Your task to perform on an android device: Go to calendar. Show me events next week Image 0: 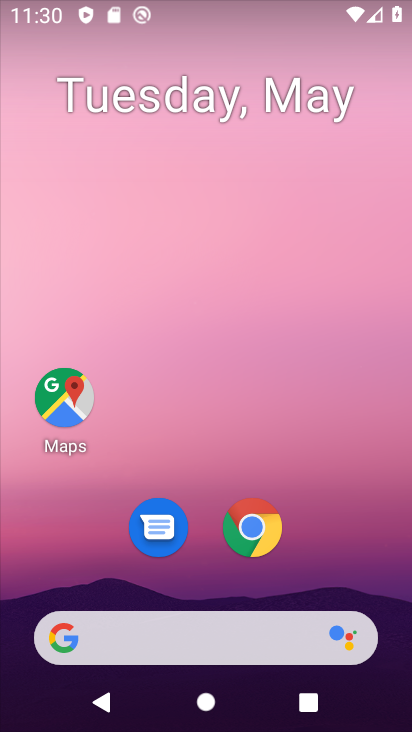
Step 0: drag from (194, 619) to (294, 130)
Your task to perform on an android device: Go to calendar. Show me events next week Image 1: 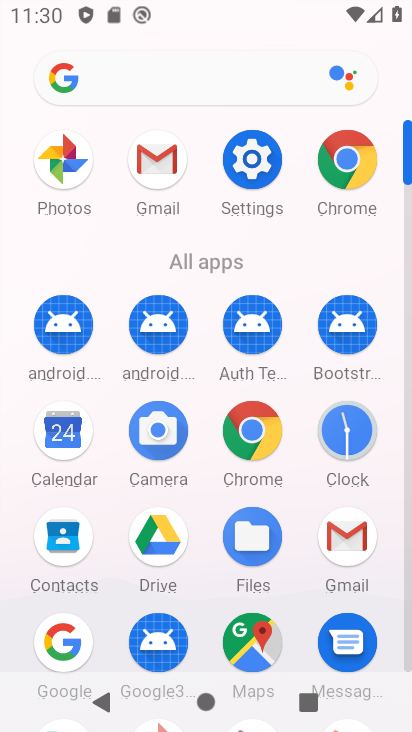
Step 1: click (63, 429)
Your task to perform on an android device: Go to calendar. Show me events next week Image 2: 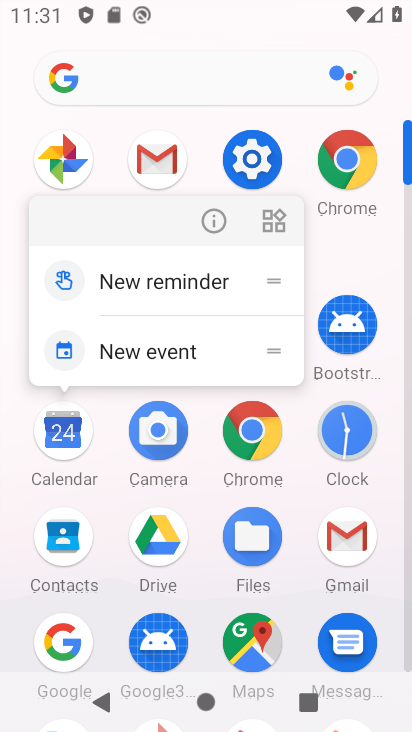
Step 2: click (59, 429)
Your task to perform on an android device: Go to calendar. Show me events next week Image 3: 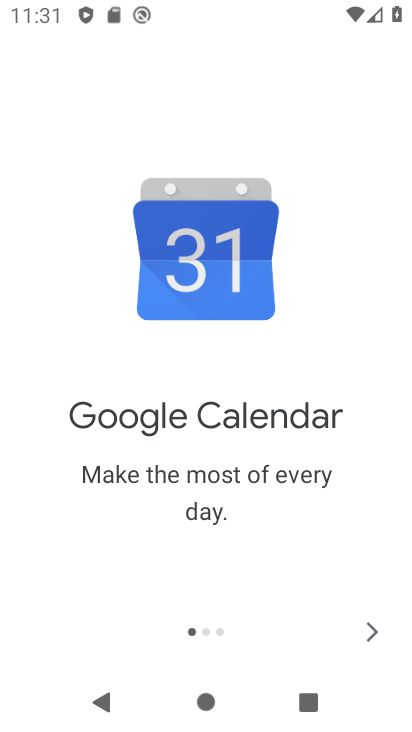
Step 3: click (374, 633)
Your task to perform on an android device: Go to calendar. Show me events next week Image 4: 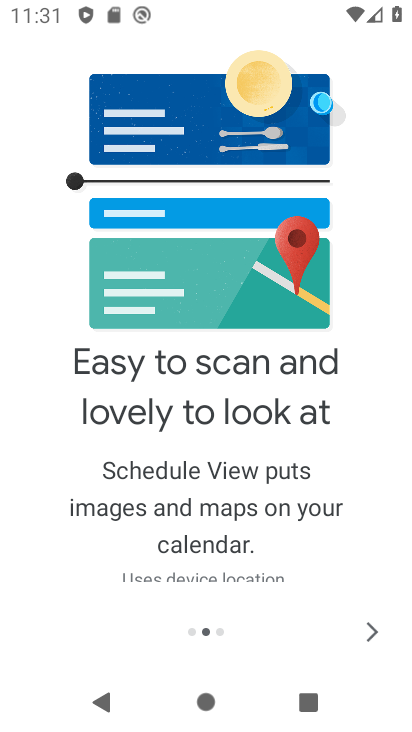
Step 4: click (374, 632)
Your task to perform on an android device: Go to calendar. Show me events next week Image 5: 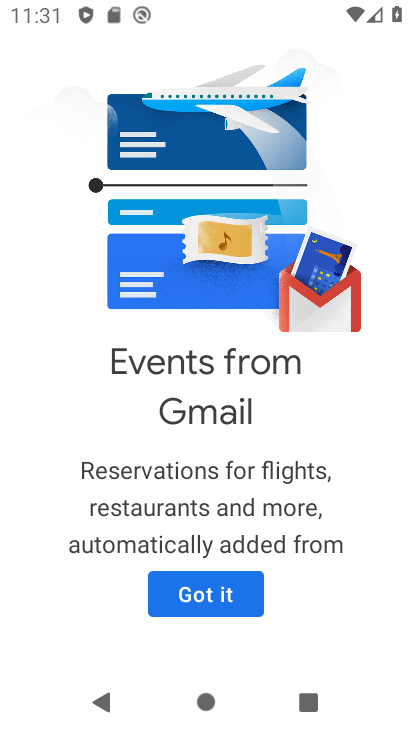
Step 5: click (189, 599)
Your task to perform on an android device: Go to calendar. Show me events next week Image 6: 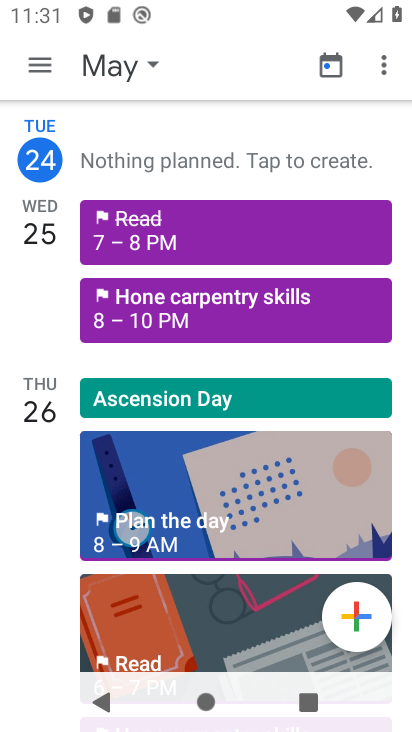
Step 6: task complete